Your task to perform on an android device: Go to accessibility settings Image 0: 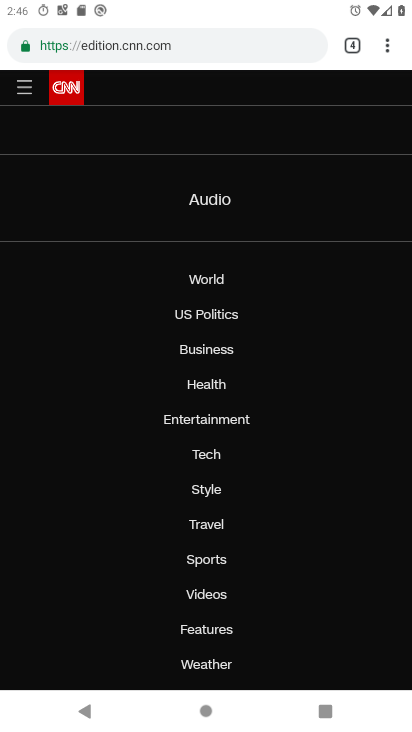
Step 0: drag from (223, 609) to (248, 59)
Your task to perform on an android device: Go to accessibility settings Image 1: 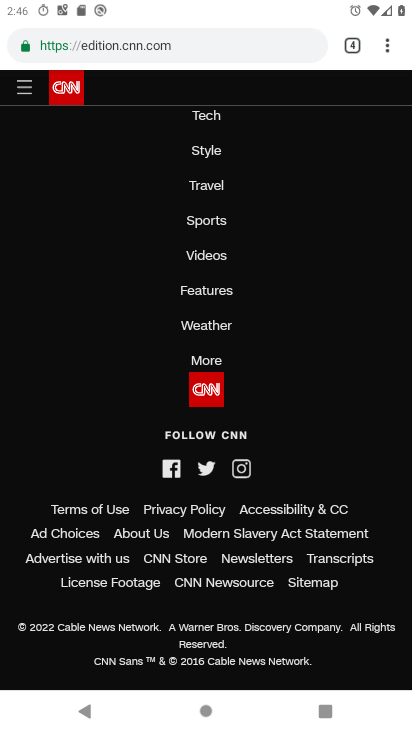
Step 1: press home button
Your task to perform on an android device: Go to accessibility settings Image 2: 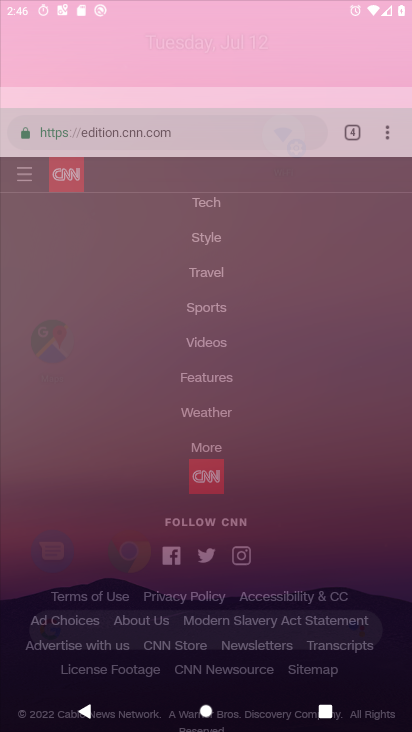
Step 2: drag from (201, 568) to (300, 117)
Your task to perform on an android device: Go to accessibility settings Image 3: 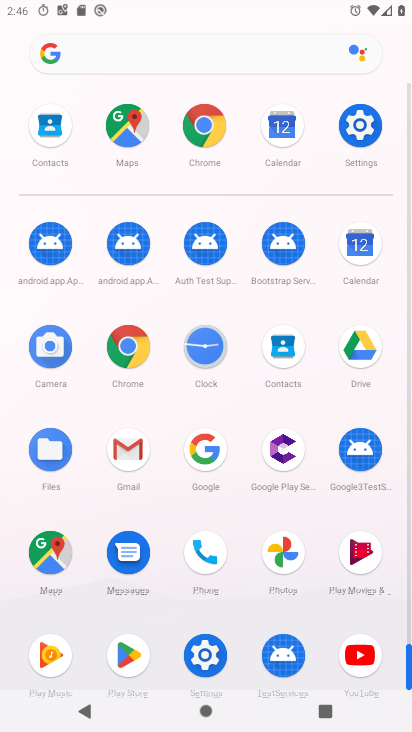
Step 3: click (189, 658)
Your task to perform on an android device: Go to accessibility settings Image 4: 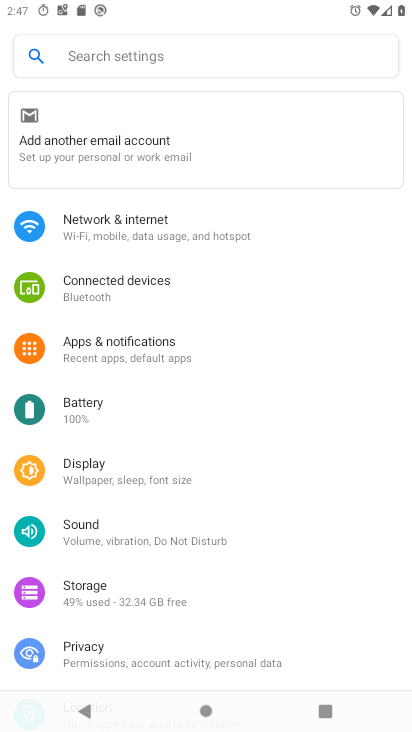
Step 4: drag from (231, 311) to (257, 3)
Your task to perform on an android device: Go to accessibility settings Image 5: 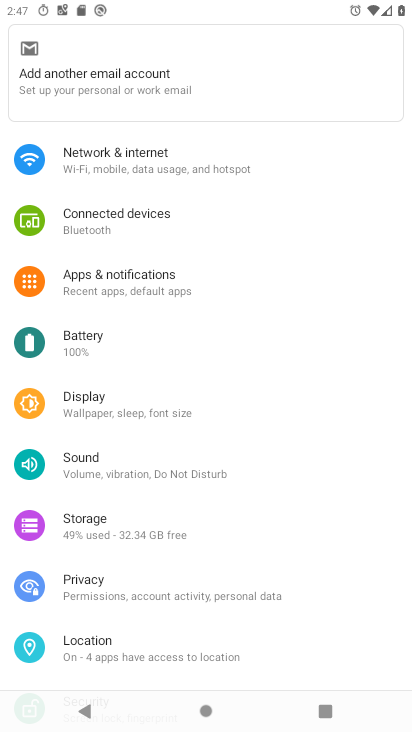
Step 5: click (197, 274)
Your task to perform on an android device: Go to accessibility settings Image 6: 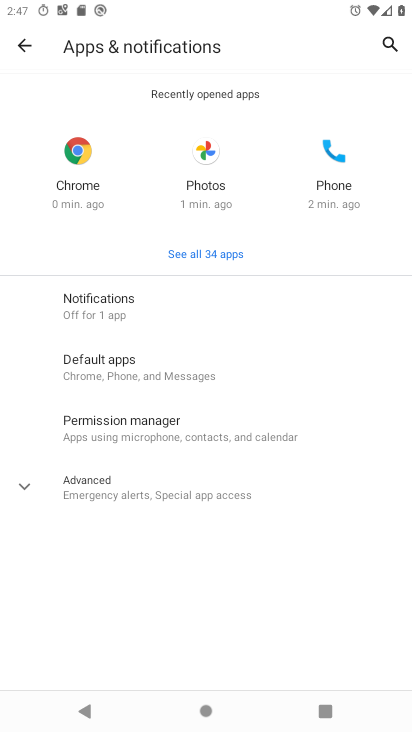
Step 6: drag from (140, 616) to (182, 163)
Your task to perform on an android device: Go to accessibility settings Image 7: 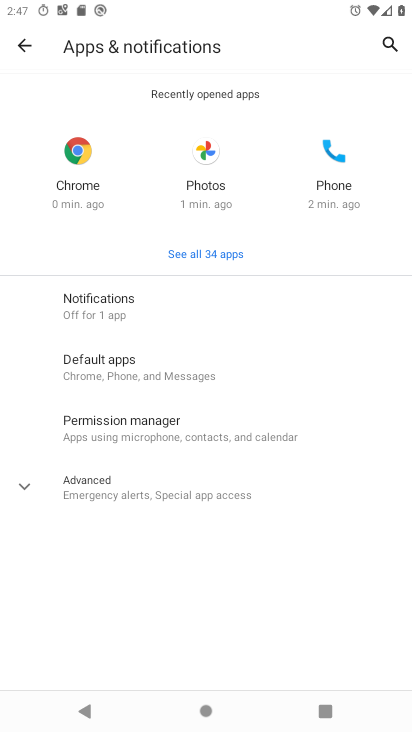
Step 7: drag from (204, 554) to (264, 170)
Your task to perform on an android device: Go to accessibility settings Image 8: 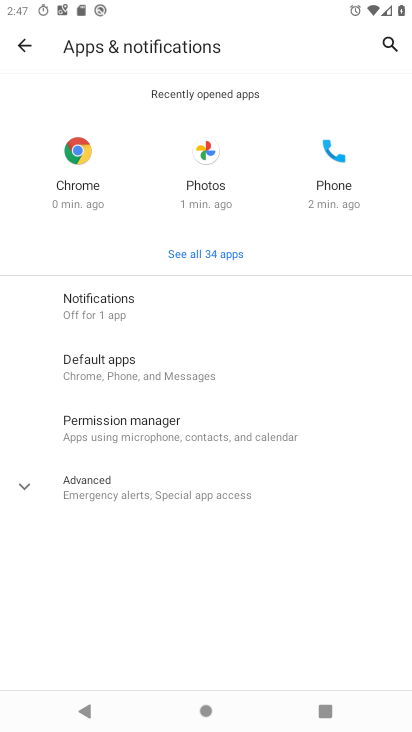
Step 8: click (32, 52)
Your task to perform on an android device: Go to accessibility settings Image 9: 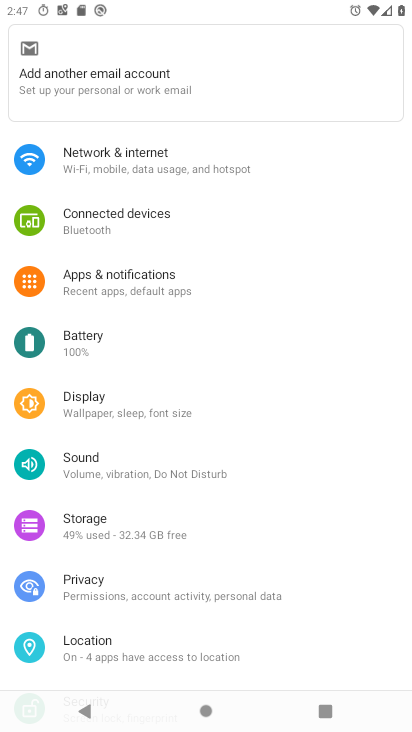
Step 9: drag from (176, 602) to (211, 127)
Your task to perform on an android device: Go to accessibility settings Image 10: 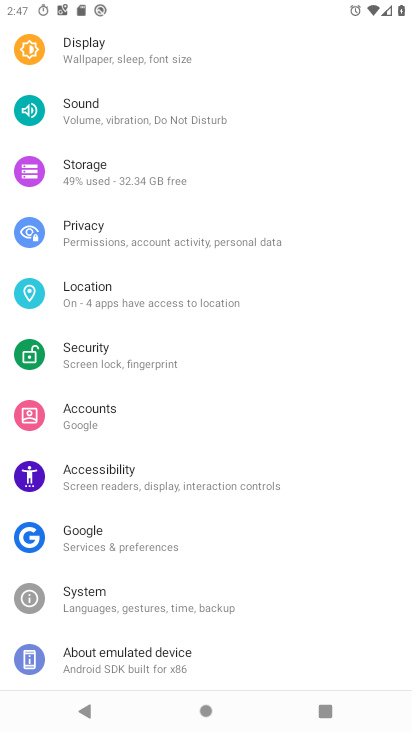
Step 10: click (127, 483)
Your task to perform on an android device: Go to accessibility settings Image 11: 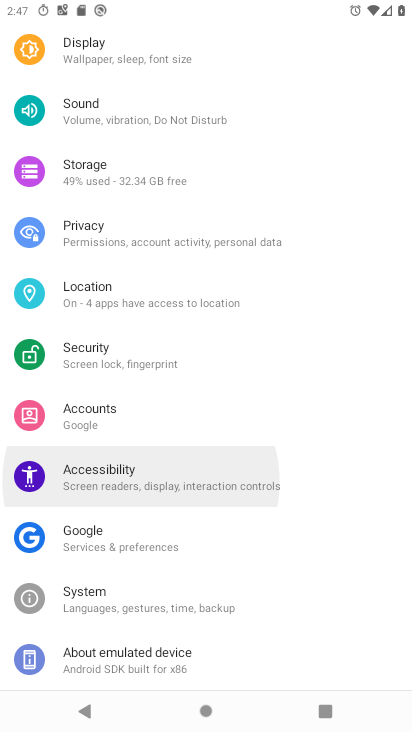
Step 11: click (127, 483)
Your task to perform on an android device: Go to accessibility settings Image 12: 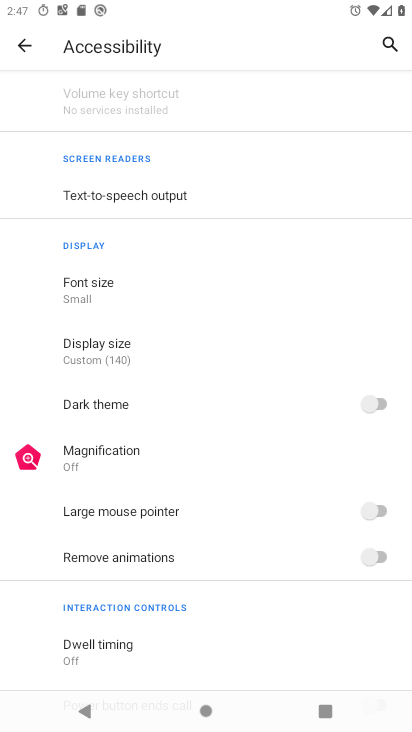
Step 12: task complete